Your task to perform on an android device: Search for a 100 ft extension cord Image 0: 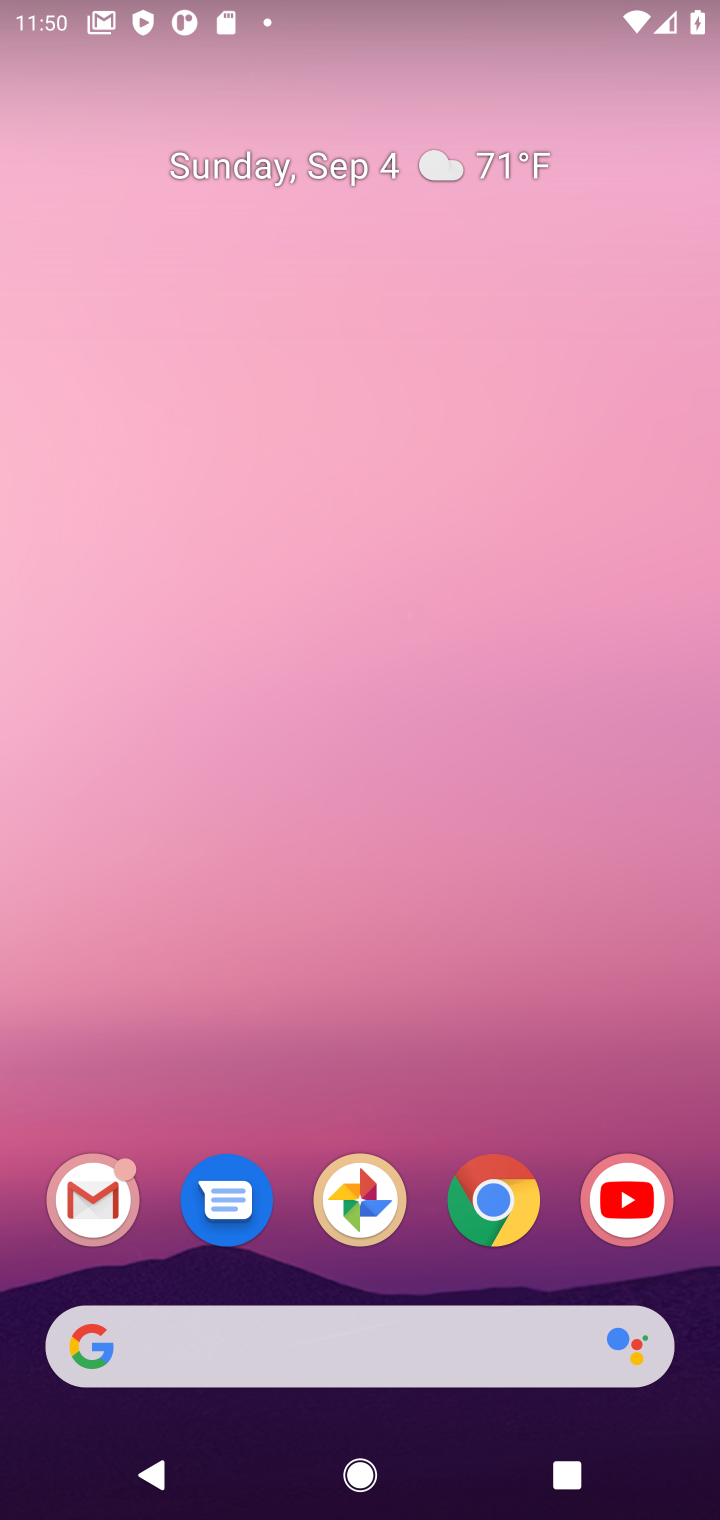
Step 0: click (499, 1227)
Your task to perform on an android device: Search for a 100 ft extension cord Image 1: 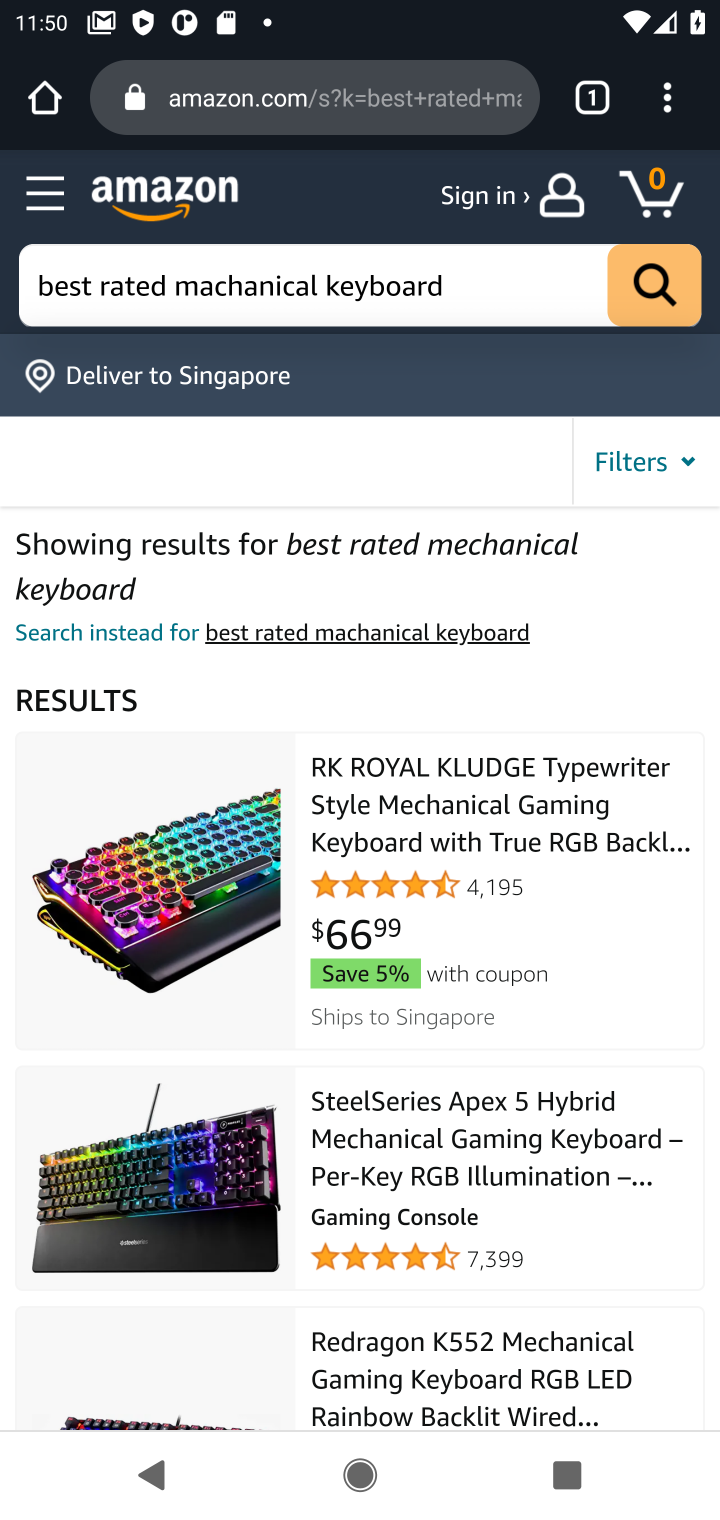
Step 1: click (423, 103)
Your task to perform on an android device: Search for a 100 ft extension cord Image 2: 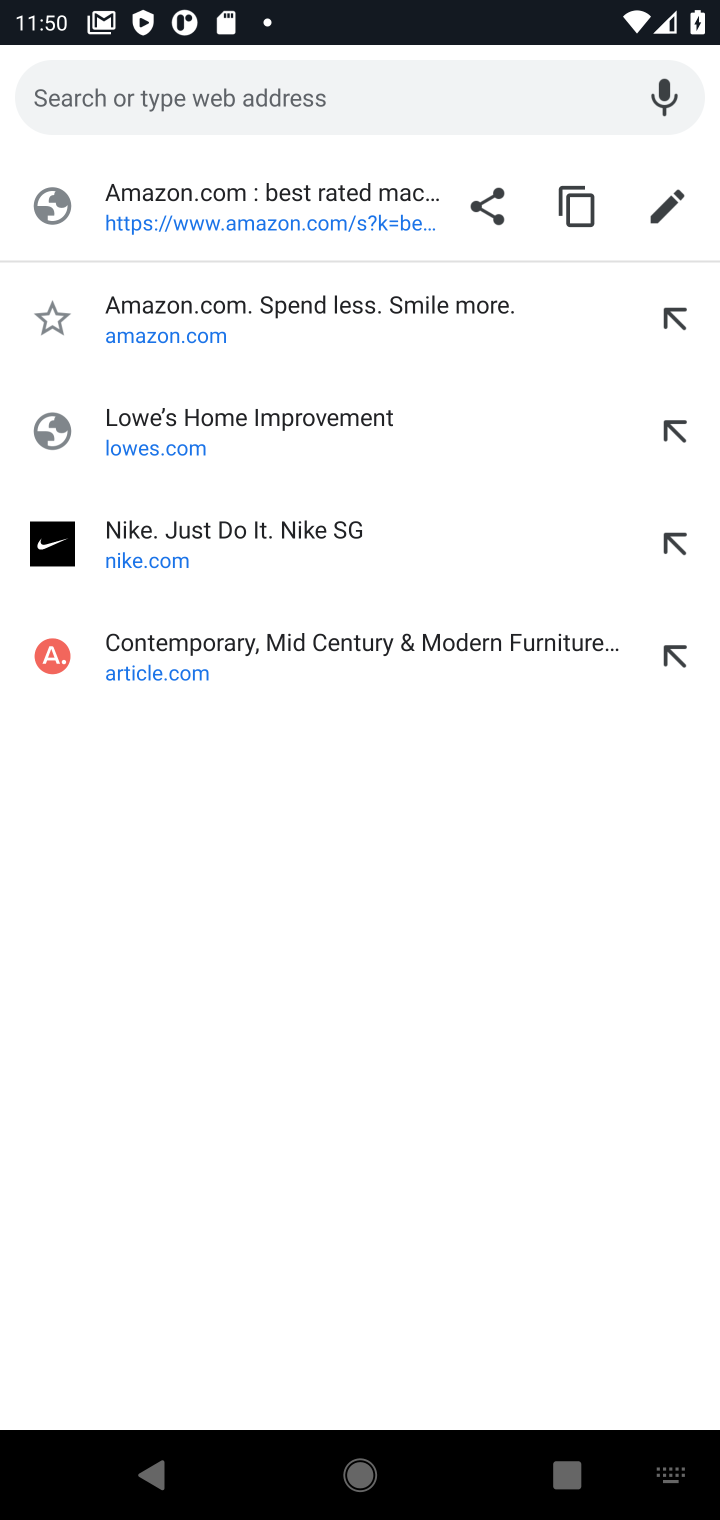
Step 2: type "100ft extension cord"
Your task to perform on an android device: Search for a 100 ft extension cord Image 3: 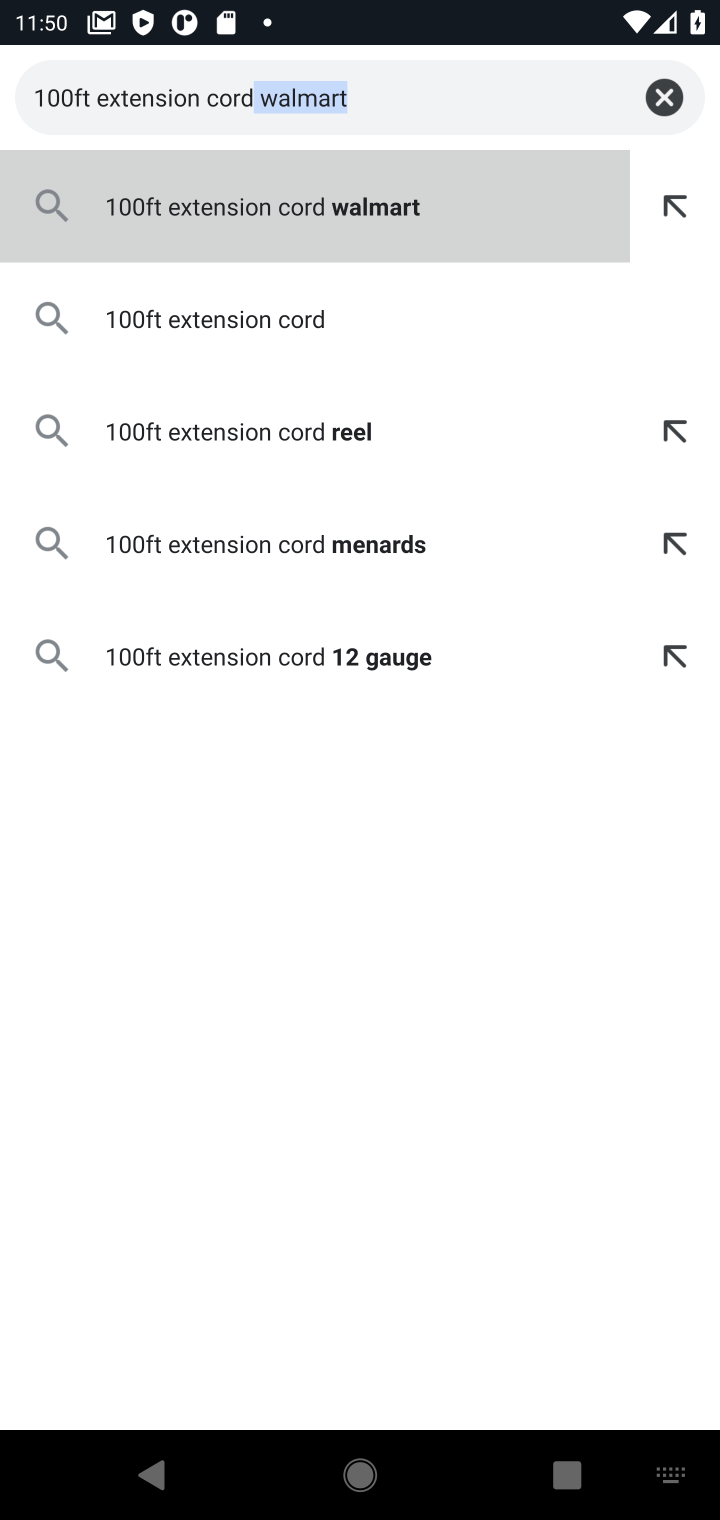
Step 3: click (372, 331)
Your task to perform on an android device: Search for a 100 ft extension cord Image 4: 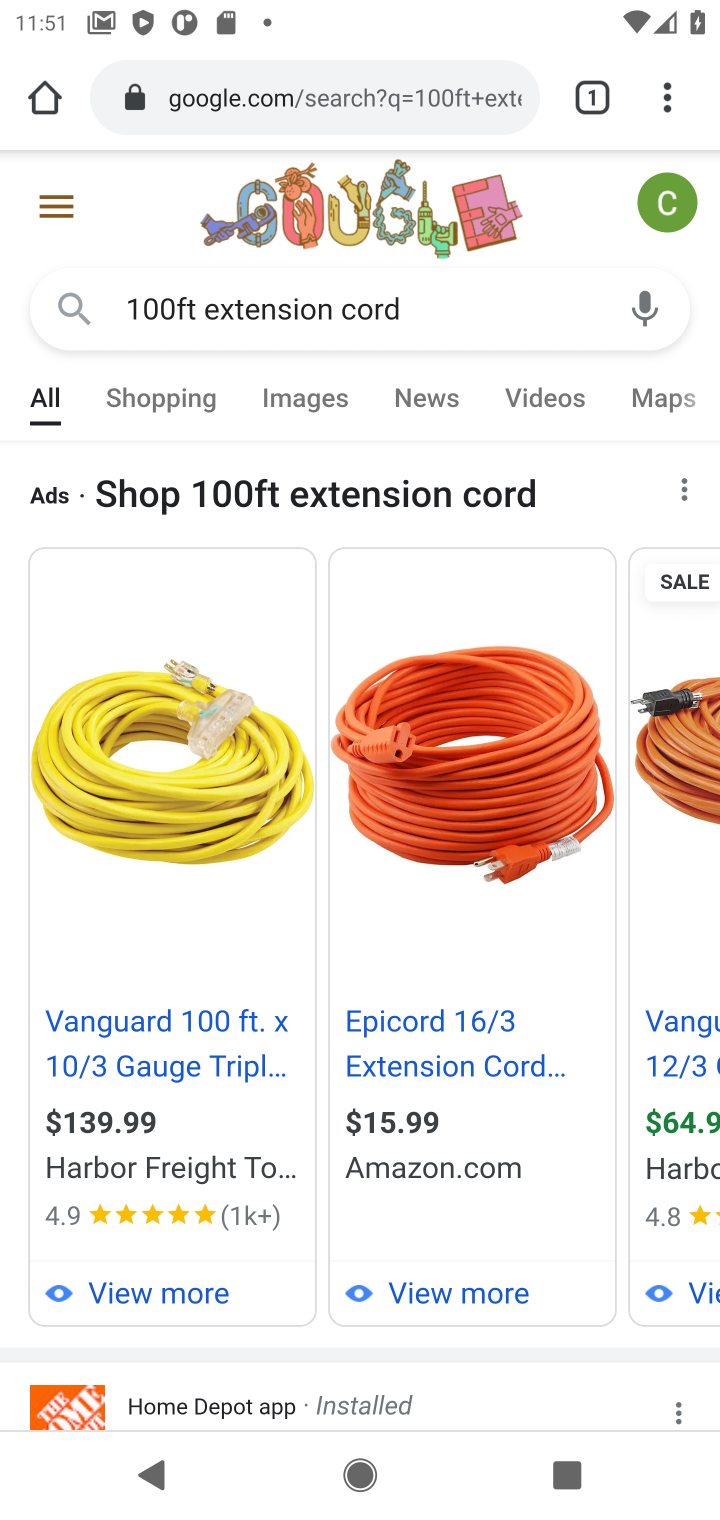
Step 4: task complete